Your task to perform on an android device: see sites visited before in the chrome app Image 0: 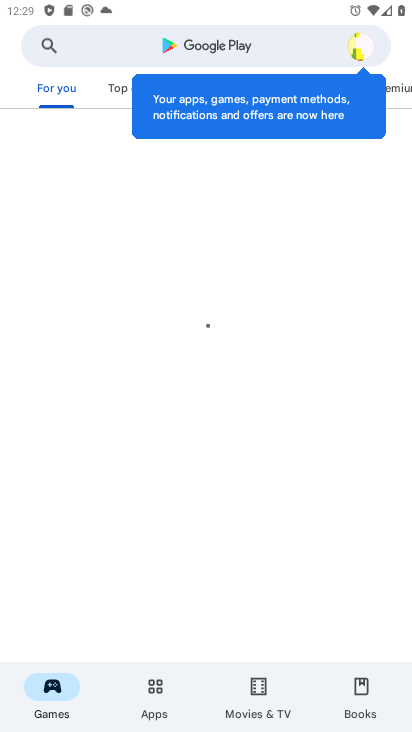
Step 0: press home button
Your task to perform on an android device: see sites visited before in the chrome app Image 1: 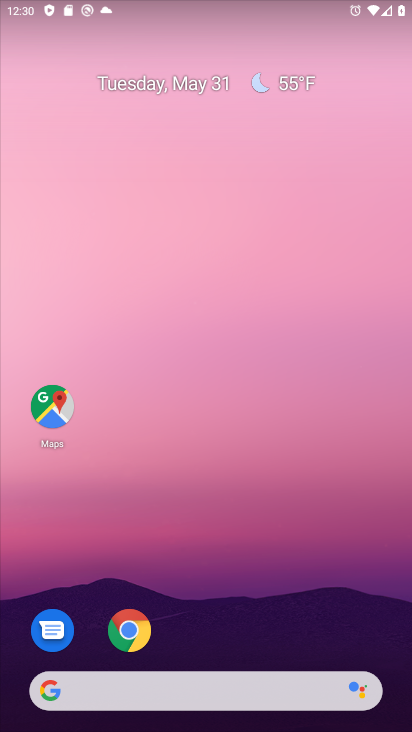
Step 1: click (123, 620)
Your task to perform on an android device: see sites visited before in the chrome app Image 2: 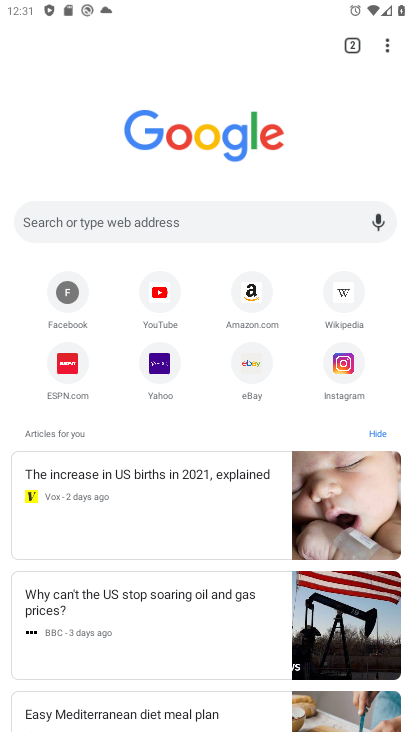
Step 2: task complete